Your task to perform on an android device: Open my contact list Image 0: 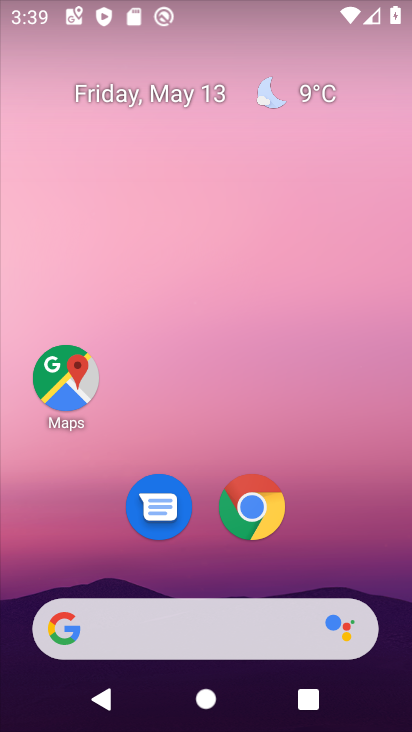
Step 0: drag from (372, 566) to (339, 0)
Your task to perform on an android device: Open my contact list Image 1: 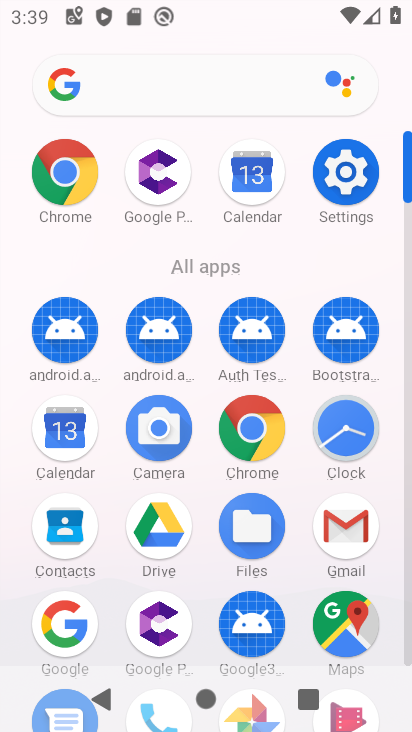
Step 1: drag from (390, 554) to (410, 214)
Your task to perform on an android device: Open my contact list Image 2: 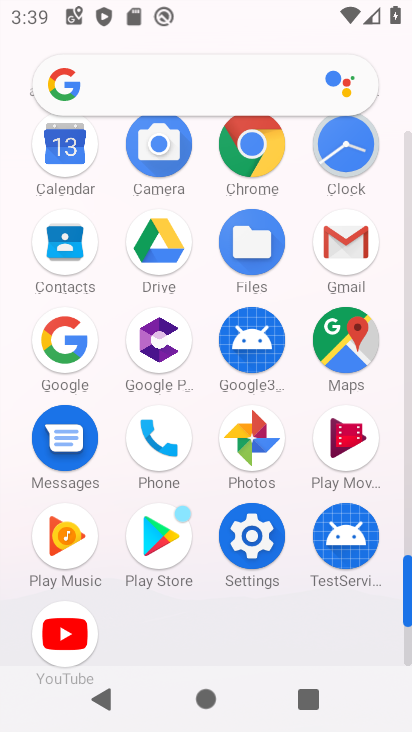
Step 2: click (154, 453)
Your task to perform on an android device: Open my contact list Image 3: 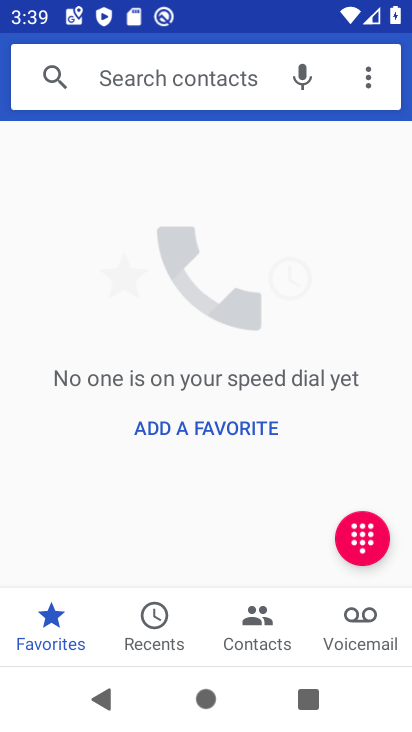
Step 3: click (251, 645)
Your task to perform on an android device: Open my contact list Image 4: 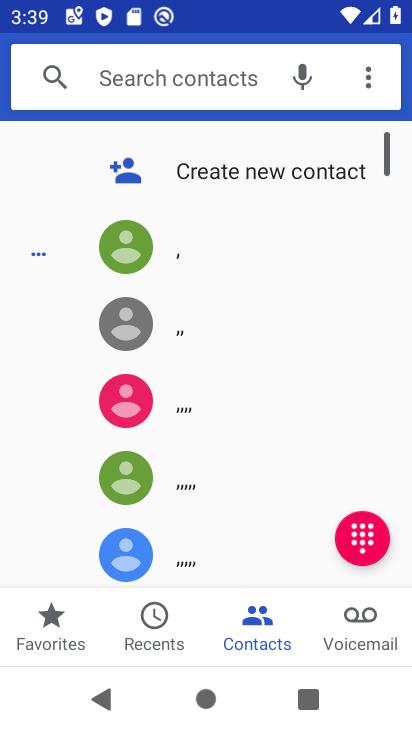
Step 4: task complete